Your task to perform on an android device: Open location settings Image 0: 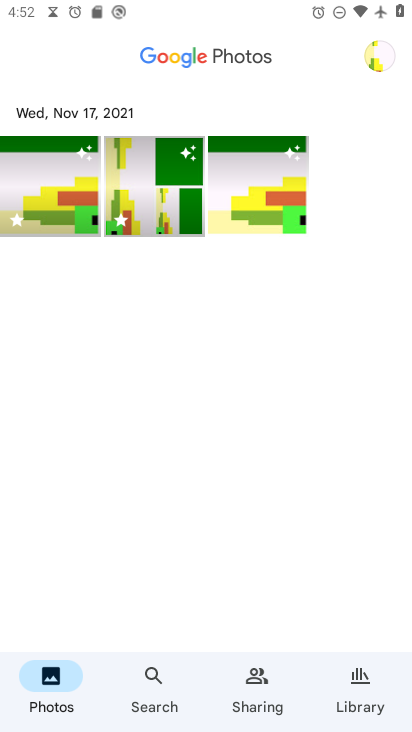
Step 0: press back button
Your task to perform on an android device: Open location settings Image 1: 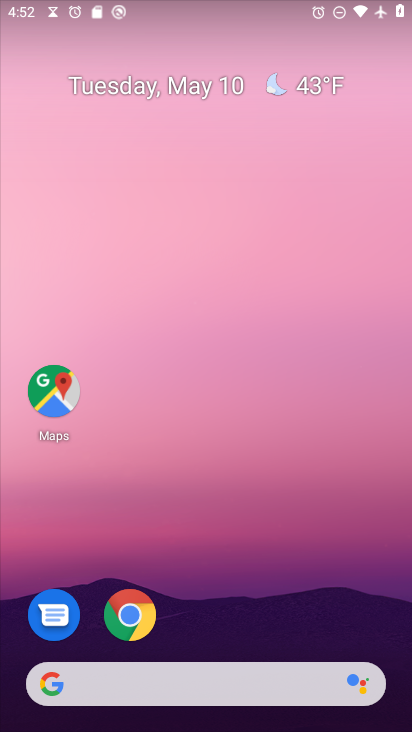
Step 1: drag from (274, 566) to (267, 46)
Your task to perform on an android device: Open location settings Image 2: 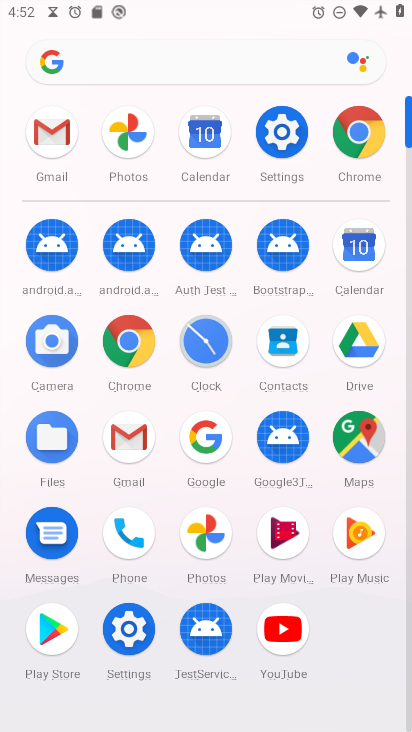
Step 2: click (128, 624)
Your task to perform on an android device: Open location settings Image 3: 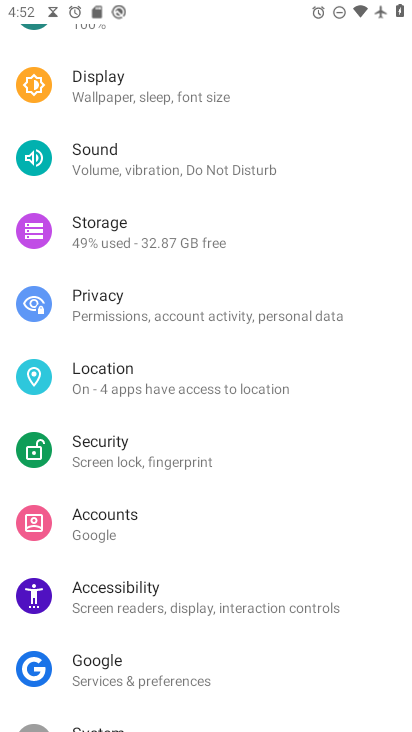
Step 3: click (120, 373)
Your task to perform on an android device: Open location settings Image 4: 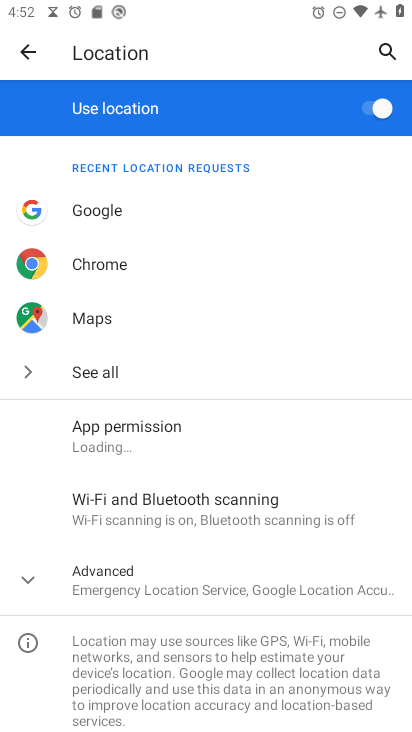
Step 4: click (42, 576)
Your task to perform on an android device: Open location settings Image 5: 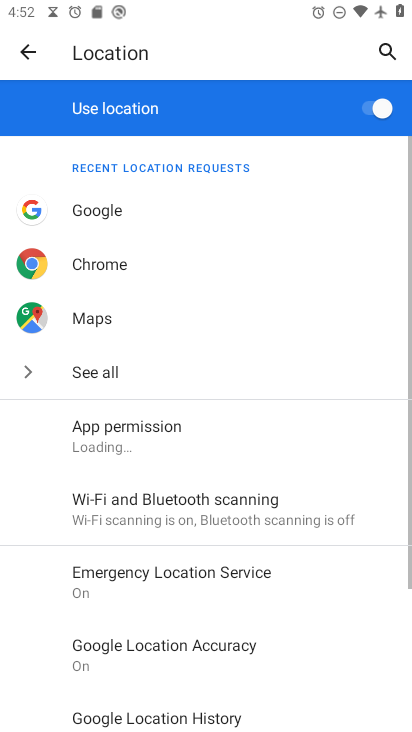
Step 5: task complete